Your task to perform on an android device: open chrome privacy settings Image 0: 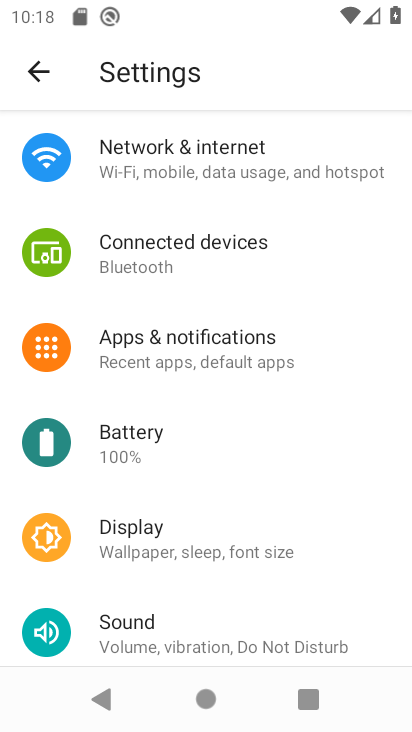
Step 0: press home button
Your task to perform on an android device: open chrome privacy settings Image 1: 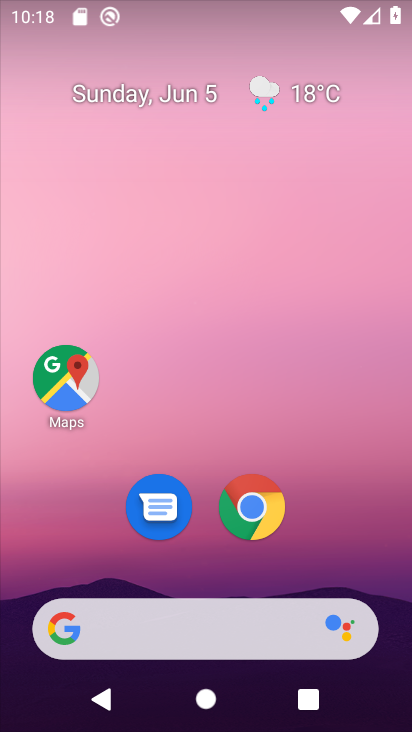
Step 1: click (261, 506)
Your task to perform on an android device: open chrome privacy settings Image 2: 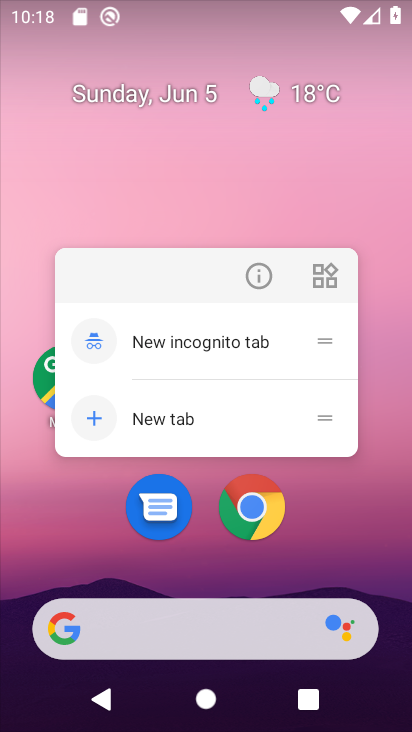
Step 2: click (224, 505)
Your task to perform on an android device: open chrome privacy settings Image 3: 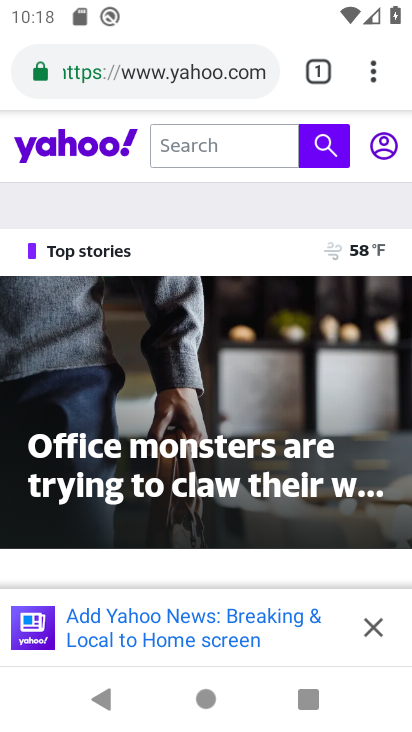
Step 3: click (378, 63)
Your task to perform on an android device: open chrome privacy settings Image 4: 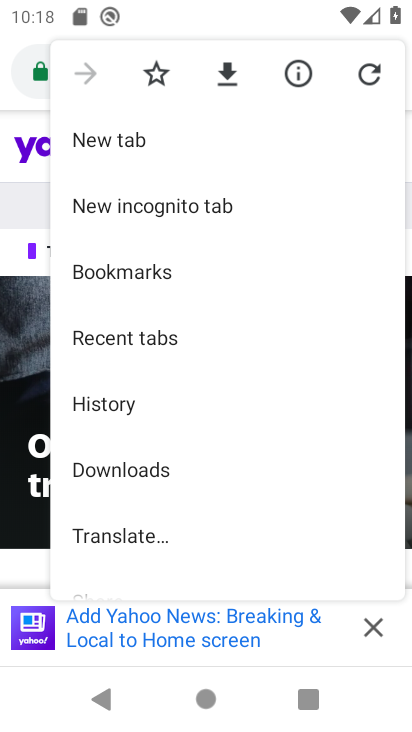
Step 4: drag from (152, 516) to (195, 99)
Your task to perform on an android device: open chrome privacy settings Image 5: 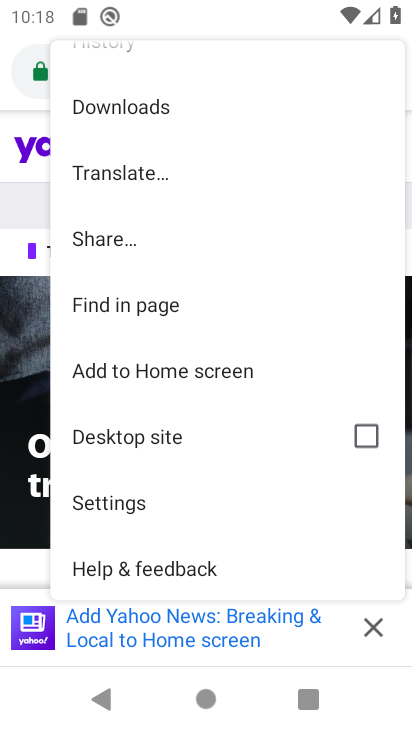
Step 5: click (129, 511)
Your task to perform on an android device: open chrome privacy settings Image 6: 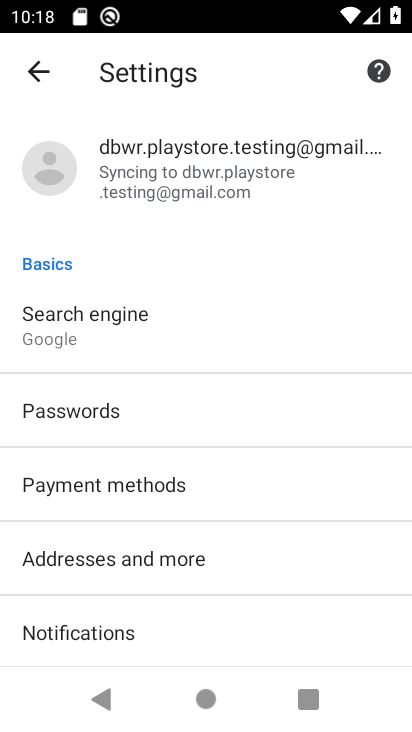
Step 6: drag from (120, 611) to (178, 131)
Your task to perform on an android device: open chrome privacy settings Image 7: 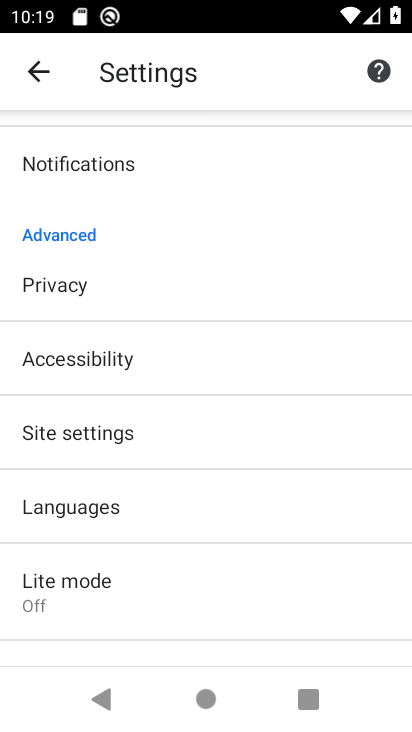
Step 7: click (59, 271)
Your task to perform on an android device: open chrome privacy settings Image 8: 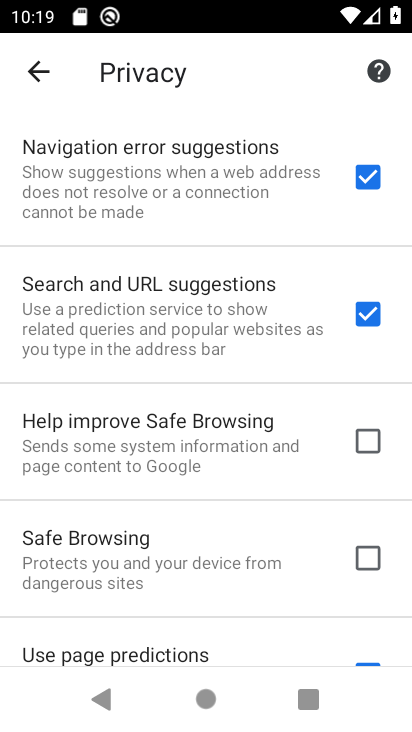
Step 8: task complete